Your task to perform on an android device: turn on improve location accuracy Image 0: 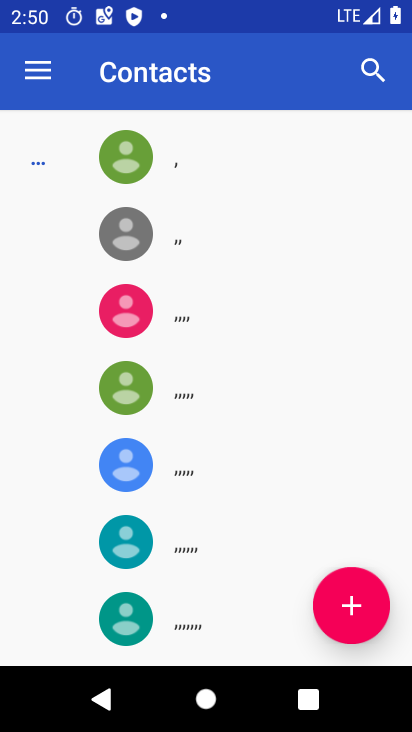
Step 0: press home button
Your task to perform on an android device: turn on improve location accuracy Image 1: 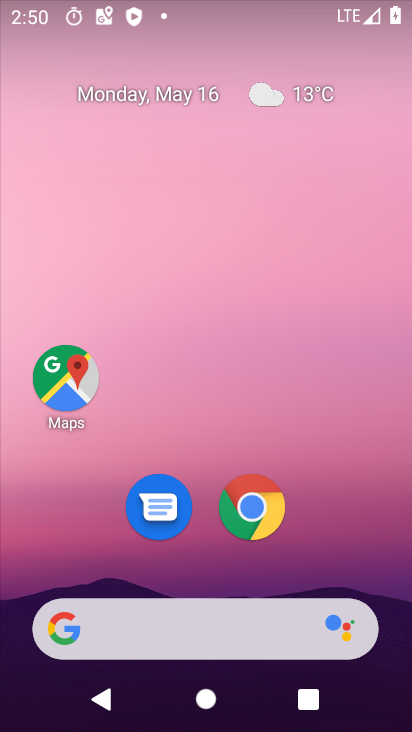
Step 1: drag from (375, 564) to (380, 58)
Your task to perform on an android device: turn on improve location accuracy Image 2: 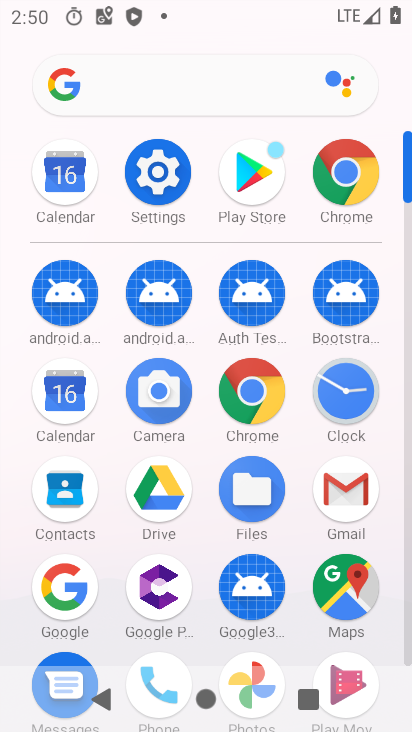
Step 2: click (155, 181)
Your task to perform on an android device: turn on improve location accuracy Image 3: 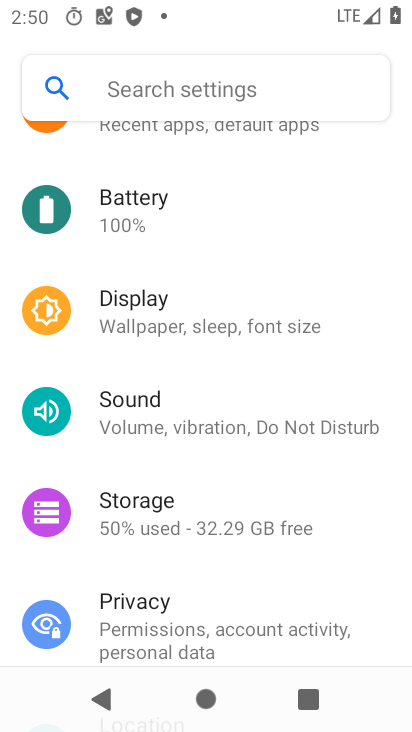
Step 3: drag from (316, 574) to (315, 413)
Your task to perform on an android device: turn on improve location accuracy Image 4: 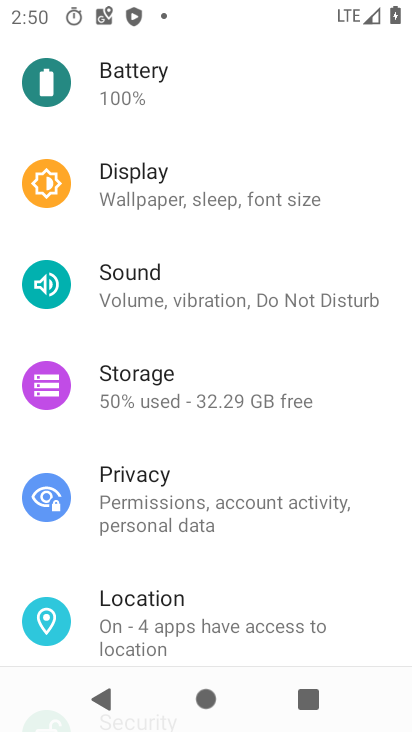
Step 4: drag from (347, 556) to (346, 396)
Your task to perform on an android device: turn on improve location accuracy Image 5: 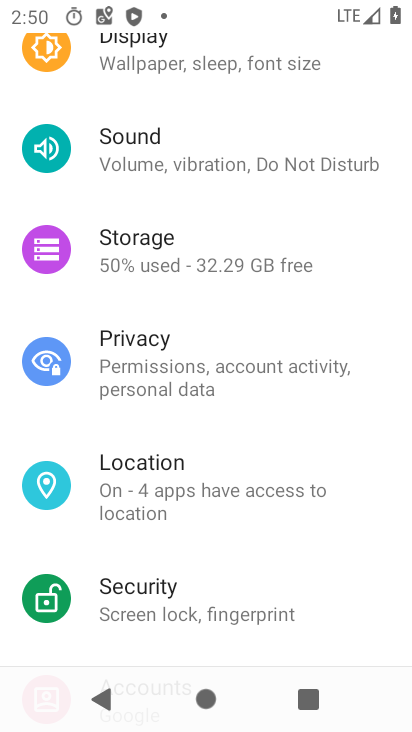
Step 5: drag from (358, 632) to (368, 440)
Your task to perform on an android device: turn on improve location accuracy Image 6: 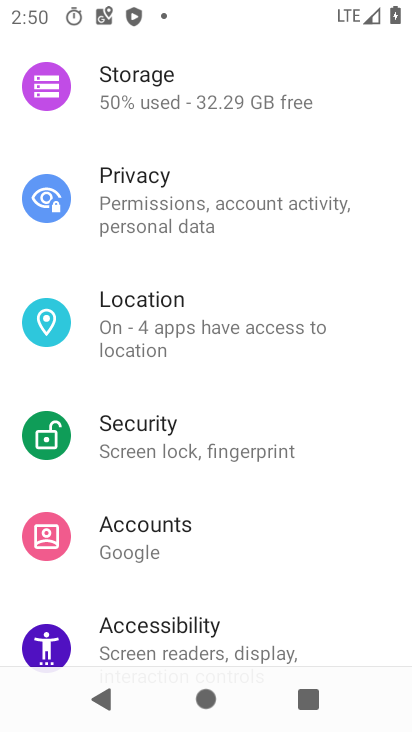
Step 6: drag from (353, 611) to (352, 408)
Your task to perform on an android device: turn on improve location accuracy Image 7: 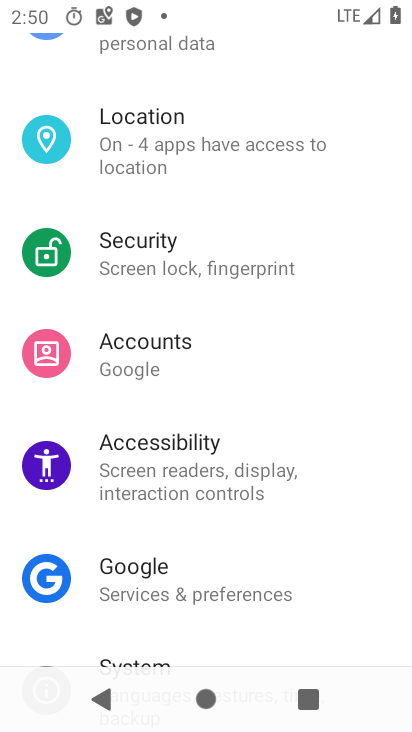
Step 7: drag from (343, 632) to (340, 434)
Your task to perform on an android device: turn on improve location accuracy Image 8: 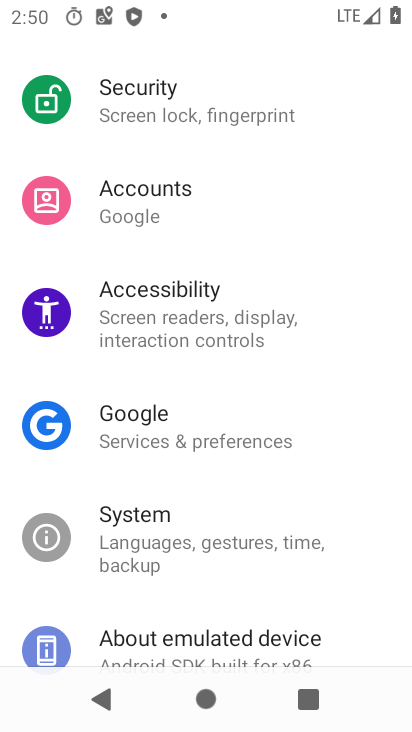
Step 8: drag from (351, 628) to (348, 440)
Your task to perform on an android device: turn on improve location accuracy Image 9: 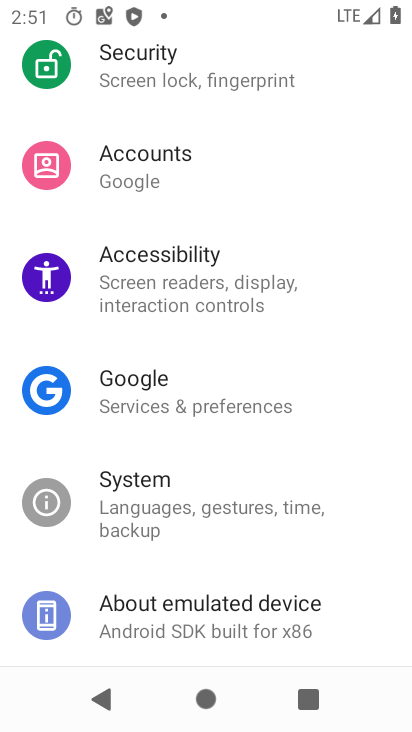
Step 9: drag from (353, 309) to (365, 449)
Your task to perform on an android device: turn on improve location accuracy Image 10: 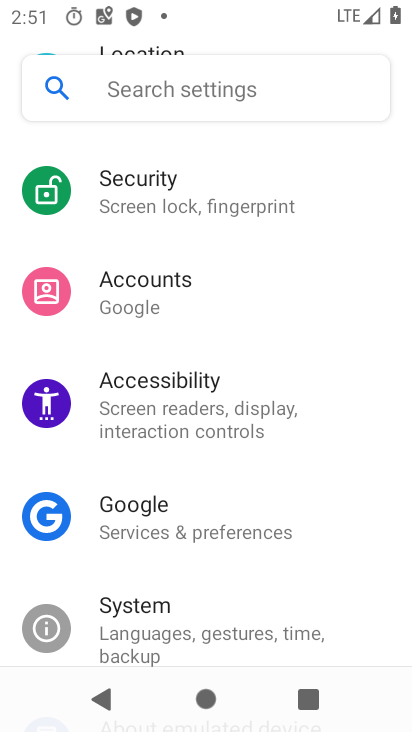
Step 10: drag from (359, 298) to (363, 397)
Your task to perform on an android device: turn on improve location accuracy Image 11: 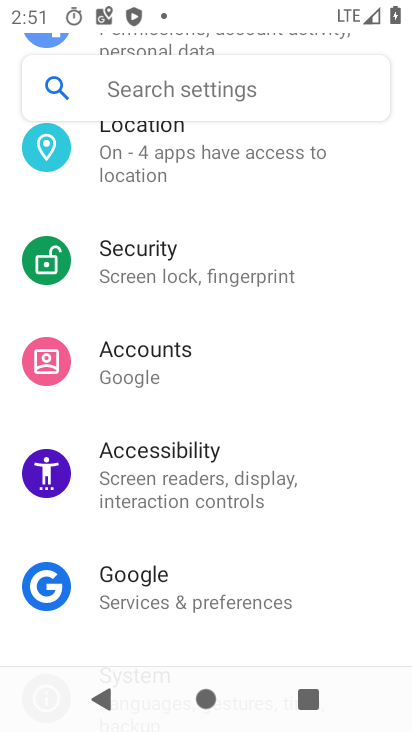
Step 11: drag from (357, 323) to (360, 457)
Your task to perform on an android device: turn on improve location accuracy Image 12: 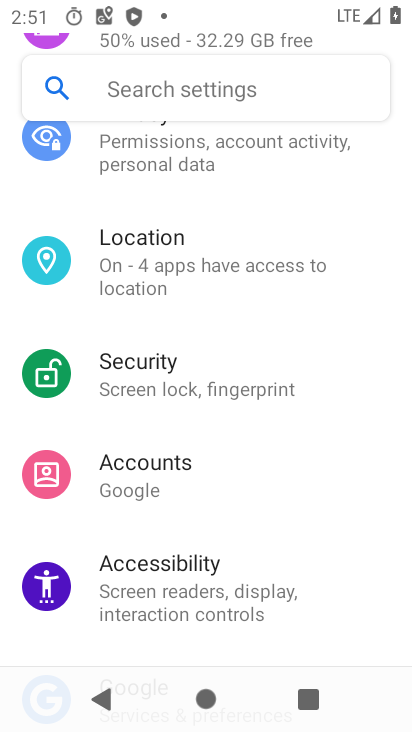
Step 12: drag from (351, 284) to (344, 418)
Your task to perform on an android device: turn on improve location accuracy Image 13: 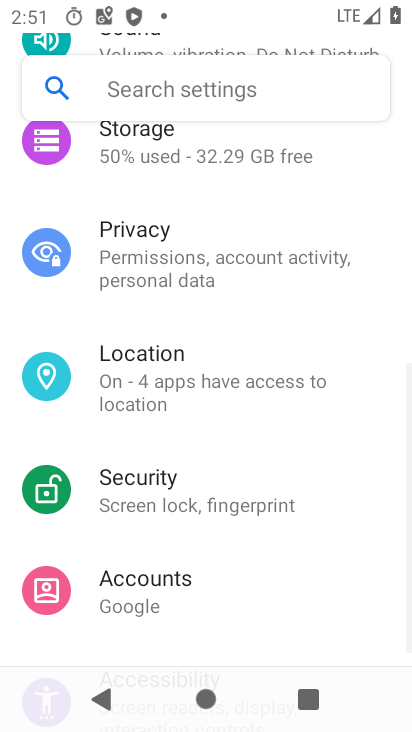
Step 13: drag from (334, 306) to (333, 432)
Your task to perform on an android device: turn on improve location accuracy Image 14: 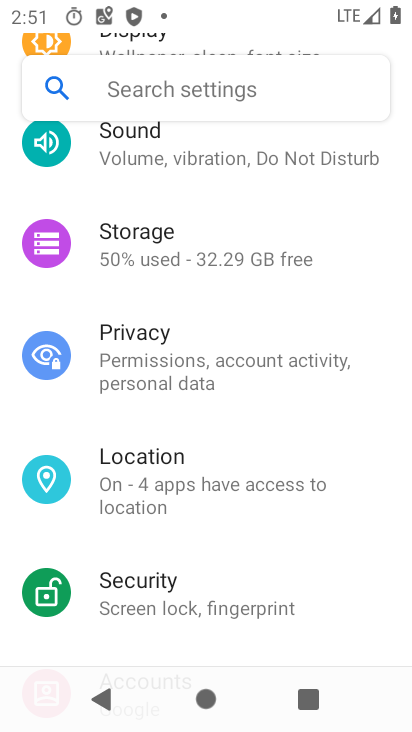
Step 14: click (201, 490)
Your task to perform on an android device: turn on improve location accuracy Image 15: 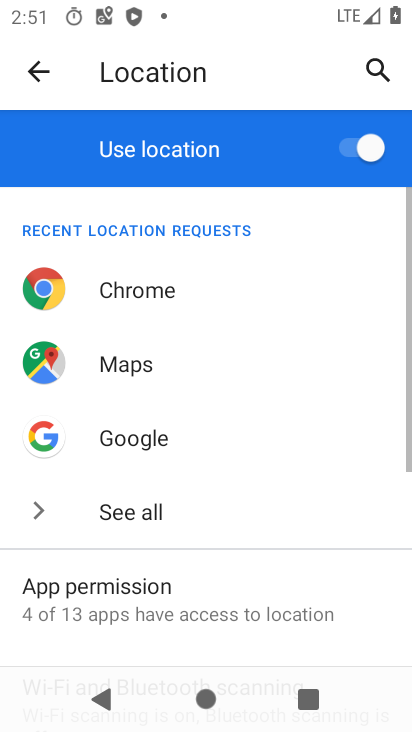
Step 15: drag from (298, 579) to (308, 387)
Your task to perform on an android device: turn on improve location accuracy Image 16: 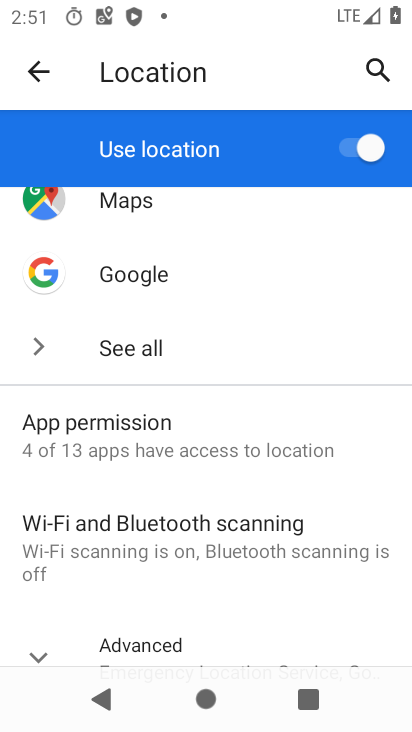
Step 16: drag from (298, 624) to (300, 391)
Your task to perform on an android device: turn on improve location accuracy Image 17: 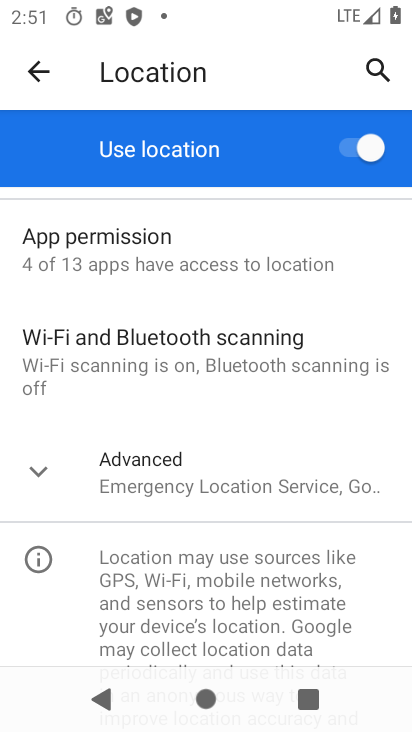
Step 17: drag from (372, 634) to (370, 442)
Your task to perform on an android device: turn on improve location accuracy Image 18: 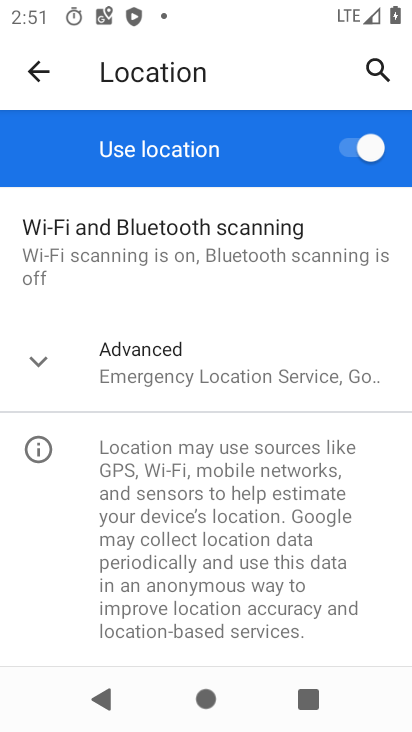
Step 18: drag from (372, 647) to (371, 462)
Your task to perform on an android device: turn on improve location accuracy Image 19: 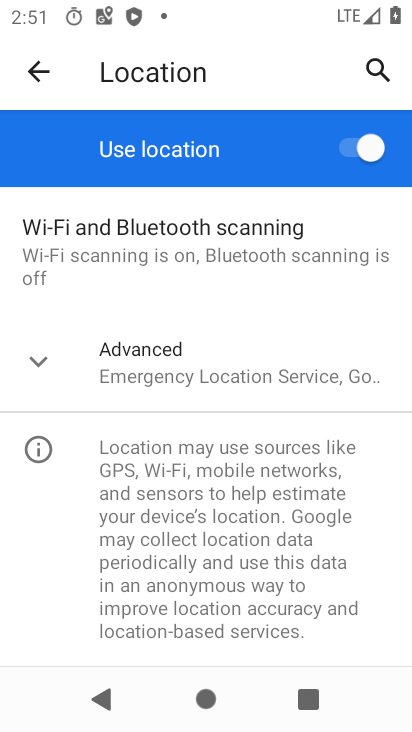
Step 19: drag from (274, 295) to (269, 447)
Your task to perform on an android device: turn on improve location accuracy Image 20: 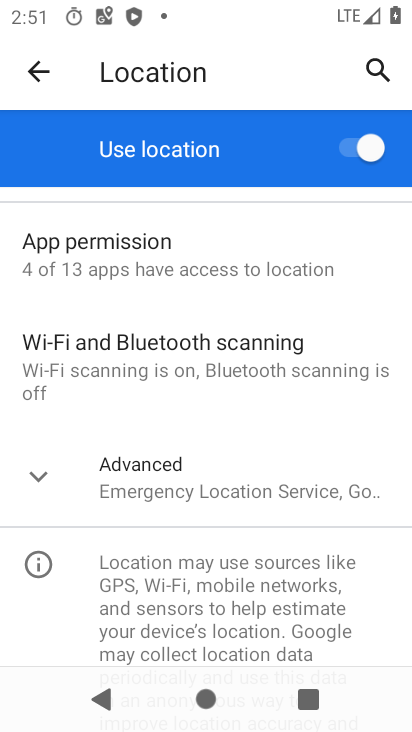
Step 20: click (231, 478)
Your task to perform on an android device: turn on improve location accuracy Image 21: 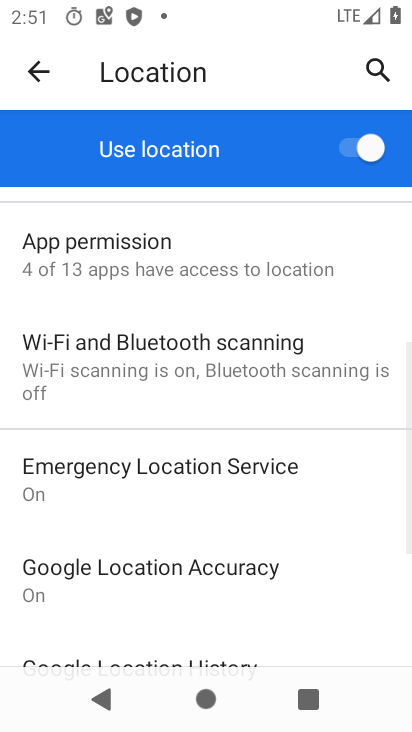
Step 21: drag from (249, 619) to (266, 447)
Your task to perform on an android device: turn on improve location accuracy Image 22: 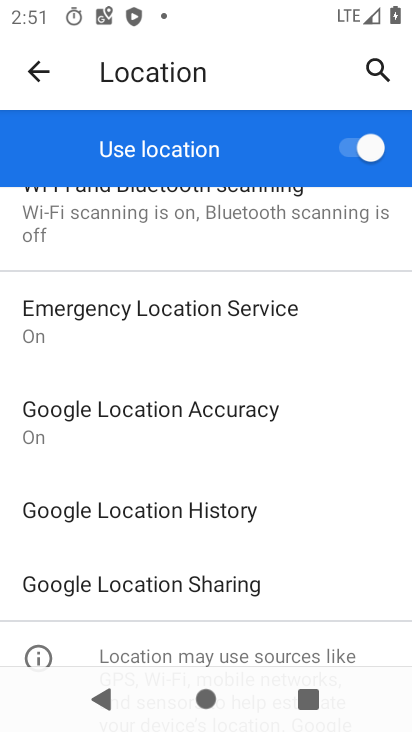
Step 22: click (158, 420)
Your task to perform on an android device: turn on improve location accuracy Image 23: 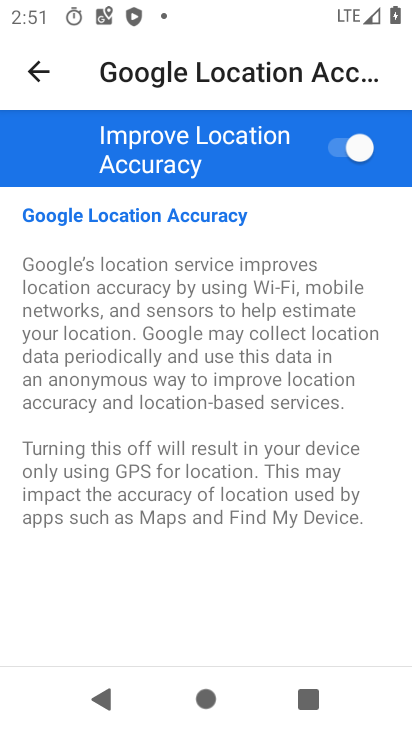
Step 23: task complete